Your task to perform on an android device: see tabs open on other devices in the chrome app Image 0: 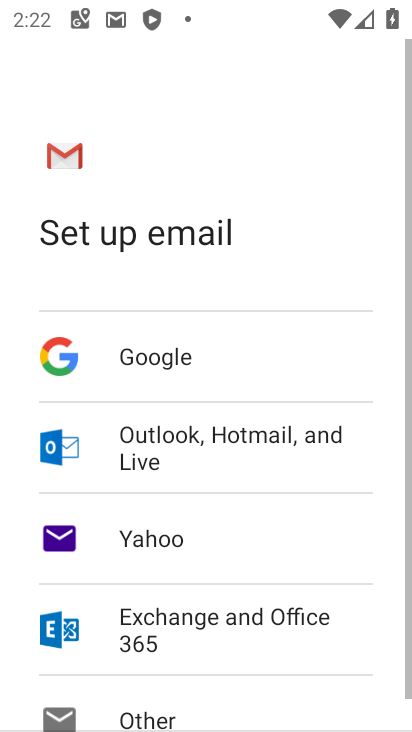
Step 0: press home button
Your task to perform on an android device: see tabs open on other devices in the chrome app Image 1: 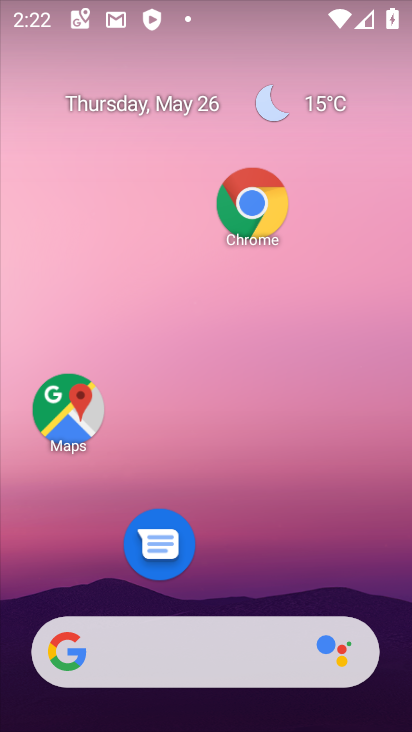
Step 1: drag from (198, 718) to (323, 0)
Your task to perform on an android device: see tabs open on other devices in the chrome app Image 2: 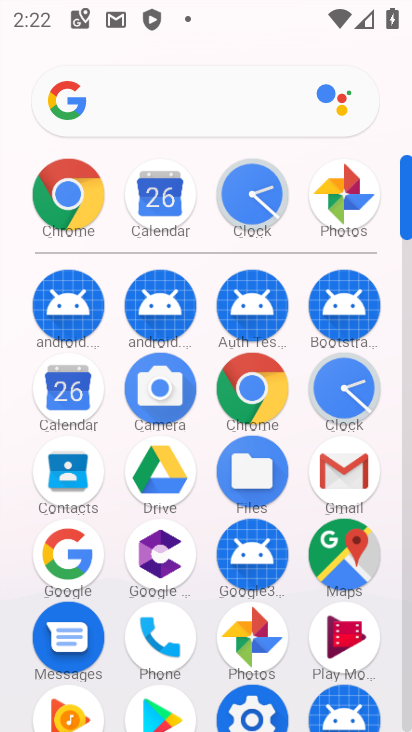
Step 2: click (80, 206)
Your task to perform on an android device: see tabs open on other devices in the chrome app Image 3: 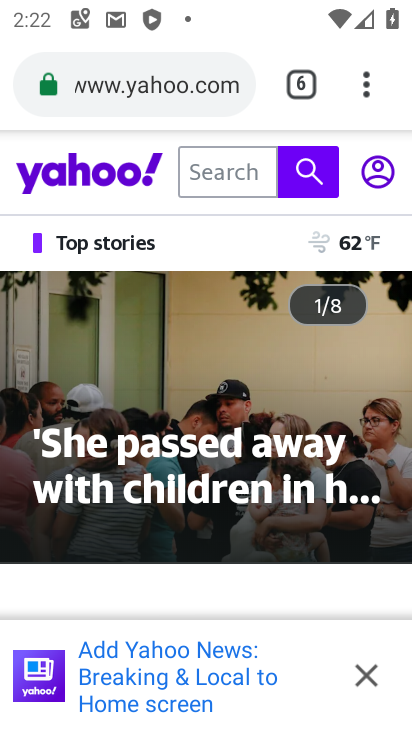
Step 3: click (363, 91)
Your task to perform on an android device: see tabs open on other devices in the chrome app Image 4: 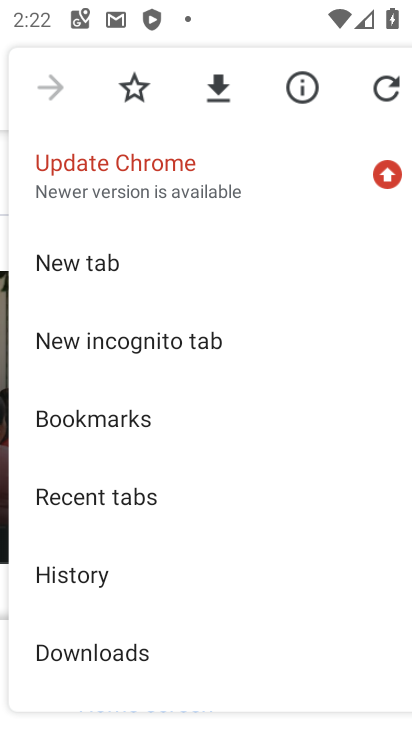
Step 4: click (122, 496)
Your task to perform on an android device: see tabs open on other devices in the chrome app Image 5: 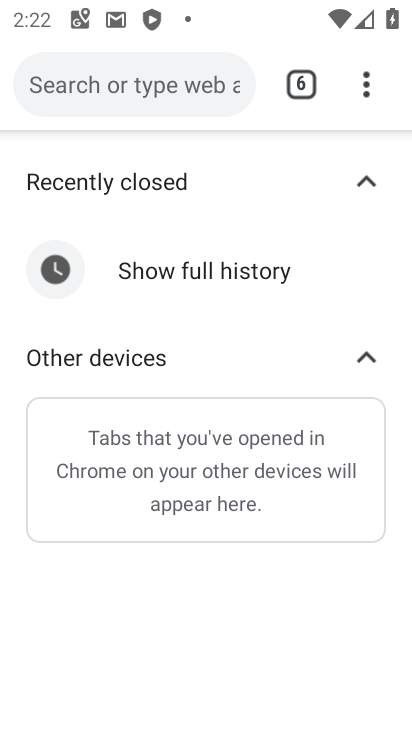
Step 5: task complete